Your task to perform on an android device: change text size in settings app Image 0: 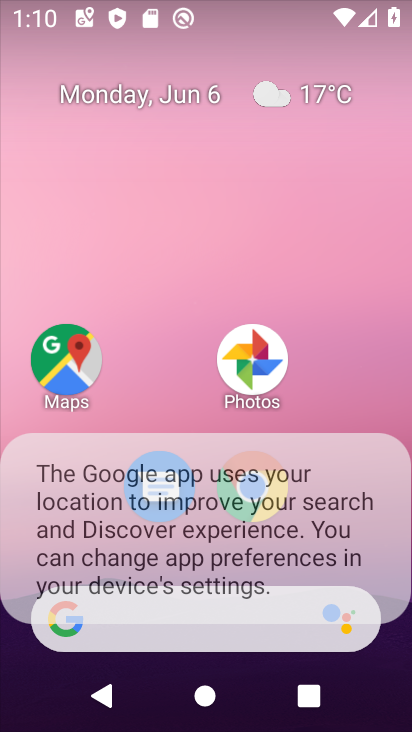
Step 0: drag from (52, 606) to (215, 25)
Your task to perform on an android device: change text size in settings app Image 1: 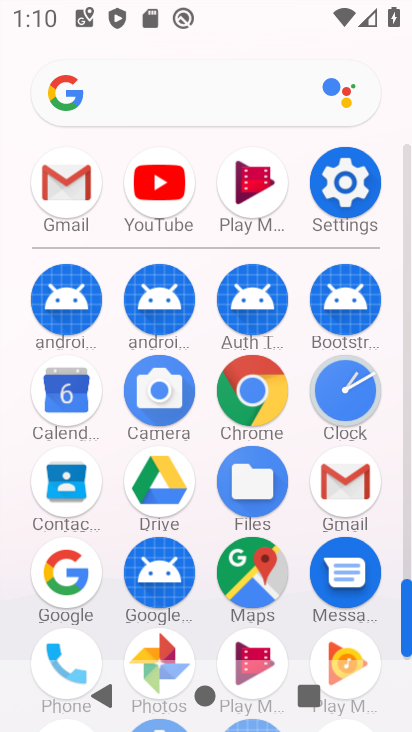
Step 1: drag from (201, 559) to (255, 306)
Your task to perform on an android device: change text size in settings app Image 2: 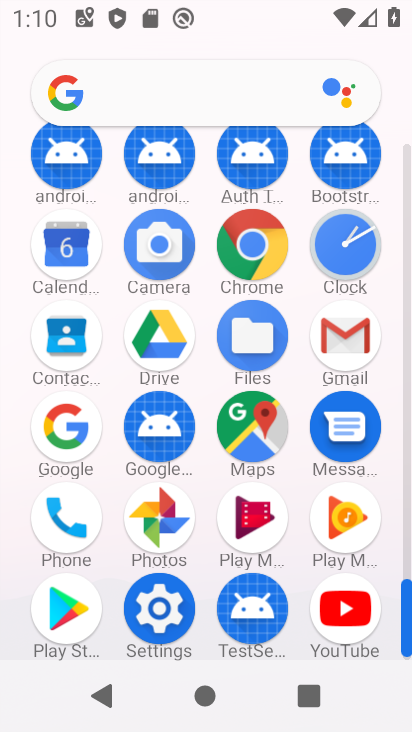
Step 2: click (160, 625)
Your task to perform on an android device: change text size in settings app Image 3: 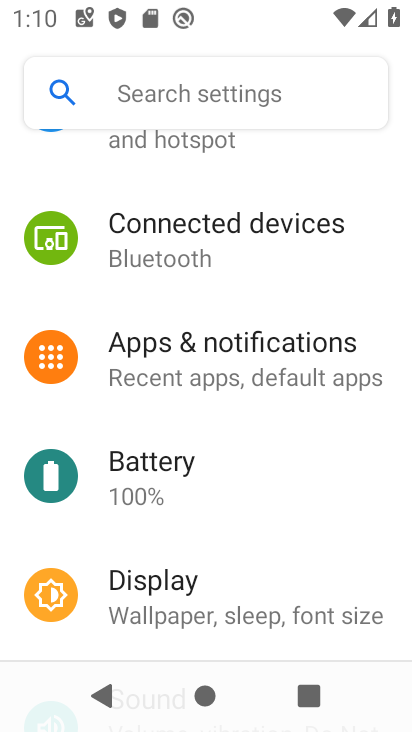
Step 3: click (215, 579)
Your task to perform on an android device: change text size in settings app Image 4: 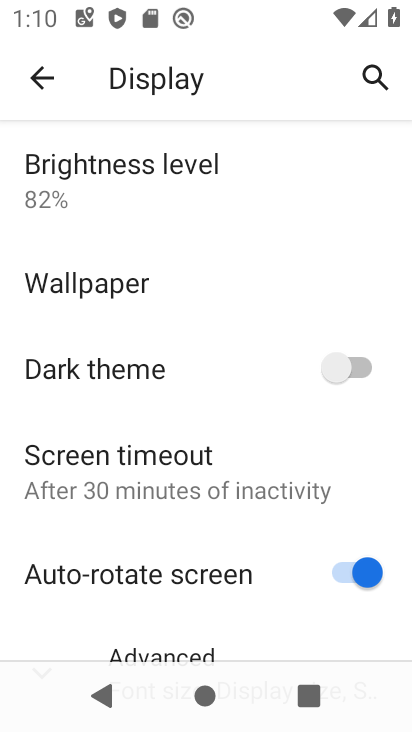
Step 4: drag from (153, 590) to (255, 182)
Your task to perform on an android device: change text size in settings app Image 5: 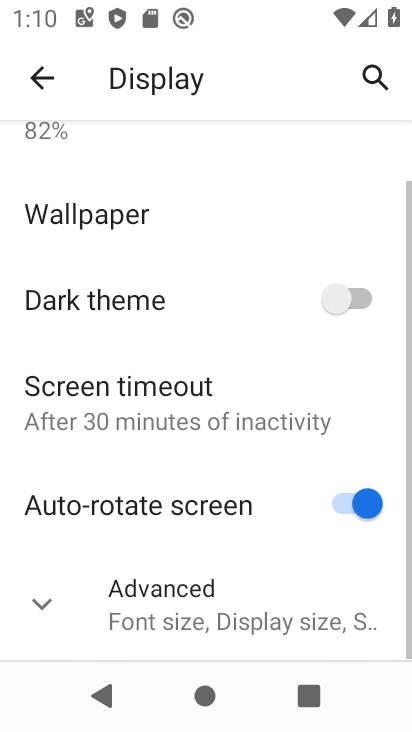
Step 5: click (209, 615)
Your task to perform on an android device: change text size in settings app Image 6: 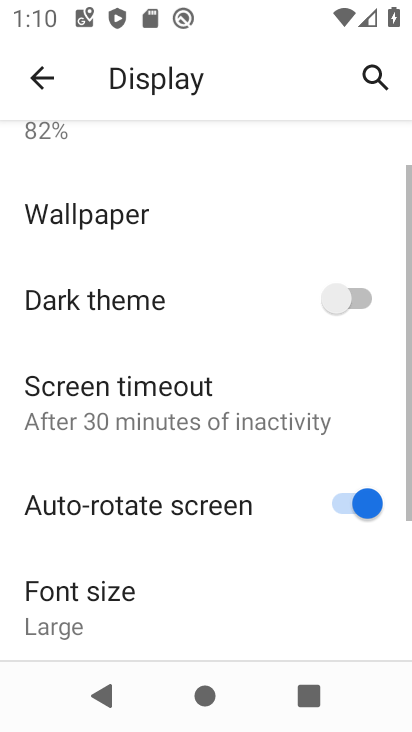
Step 6: click (206, 615)
Your task to perform on an android device: change text size in settings app Image 7: 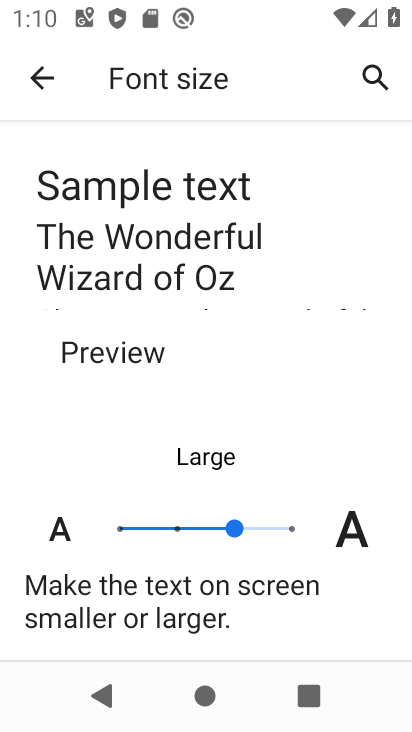
Step 7: click (169, 524)
Your task to perform on an android device: change text size in settings app Image 8: 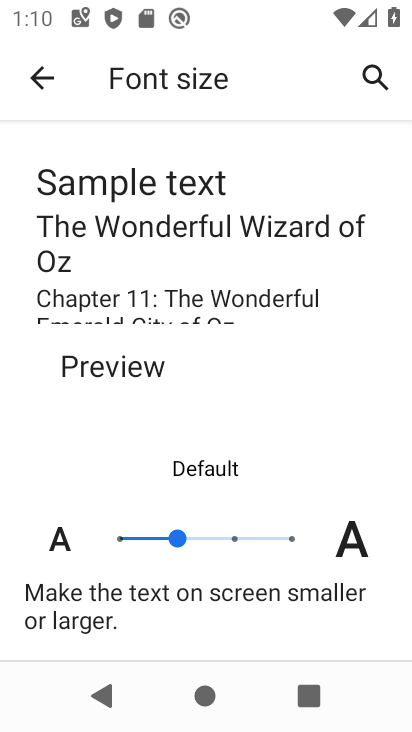
Step 8: task complete